Your task to perform on an android device: Open the map Image 0: 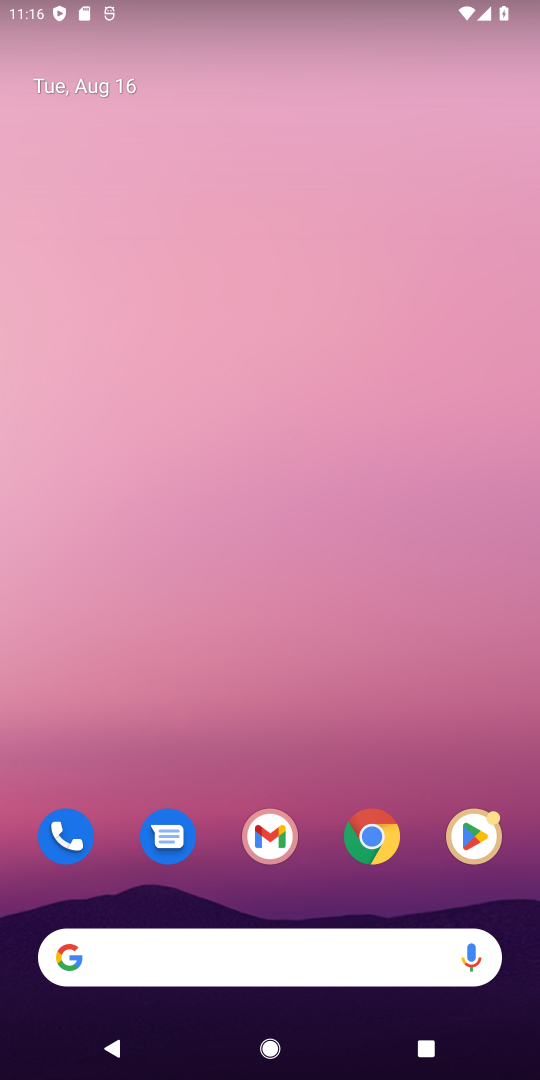
Step 0: drag from (292, 977) to (332, 85)
Your task to perform on an android device: Open the map Image 1: 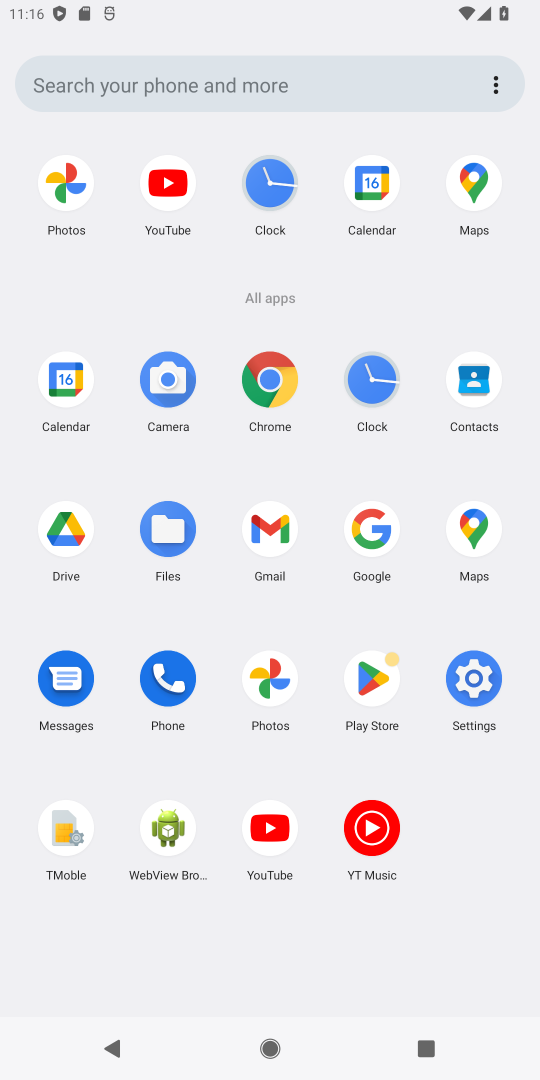
Step 1: click (472, 176)
Your task to perform on an android device: Open the map Image 2: 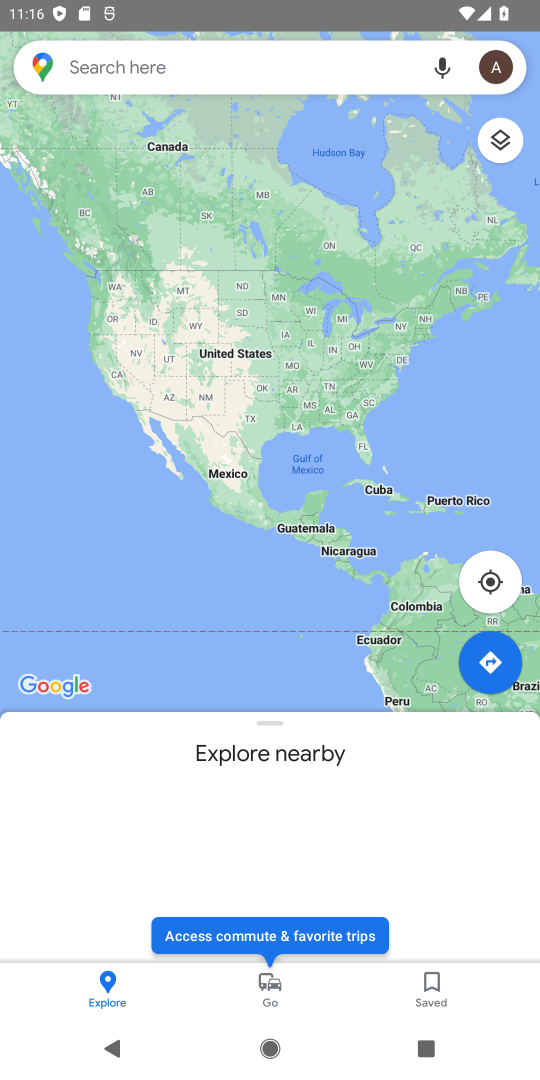
Step 2: task complete